Your task to perform on an android device: Go to settings Image 0: 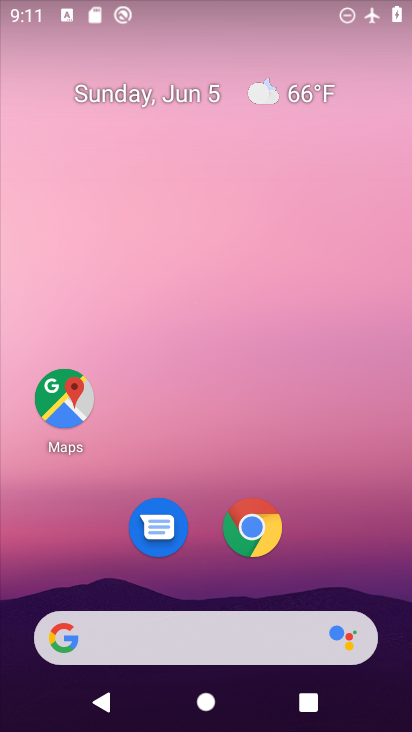
Step 0: drag from (180, 566) to (199, 157)
Your task to perform on an android device: Go to settings Image 1: 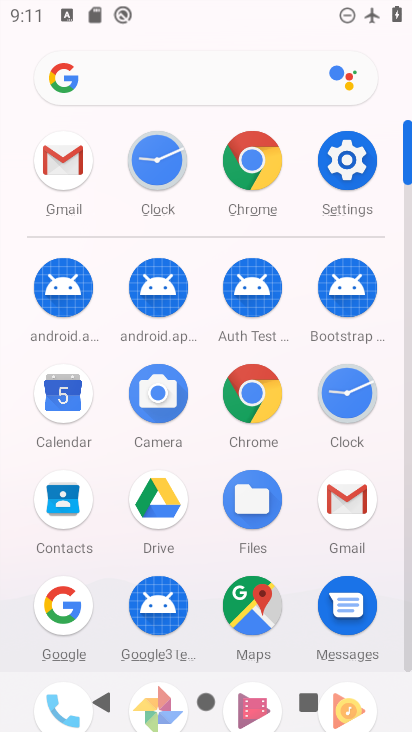
Step 1: click (345, 176)
Your task to perform on an android device: Go to settings Image 2: 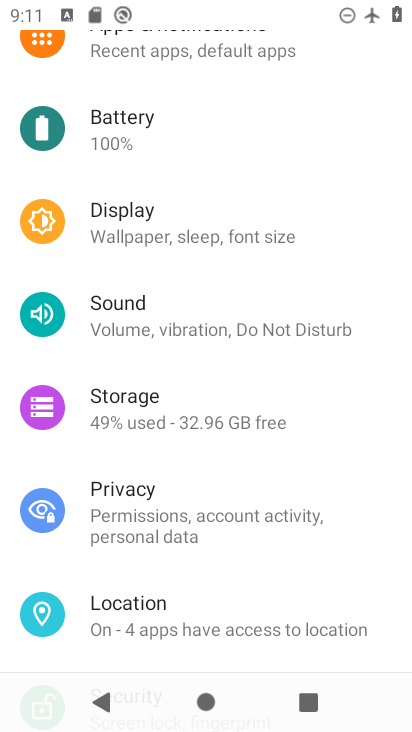
Step 2: task complete